Your task to perform on an android device: turn on sleep mode Image 0: 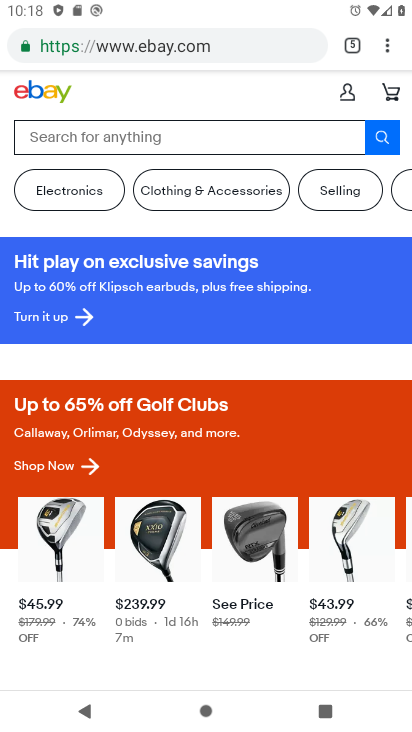
Step 0: press back button
Your task to perform on an android device: turn on sleep mode Image 1: 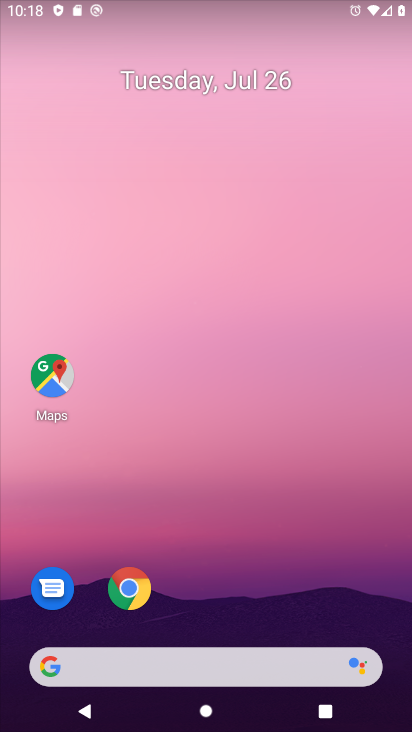
Step 1: drag from (219, 592) to (314, 0)
Your task to perform on an android device: turn on sleep mode Image 2: 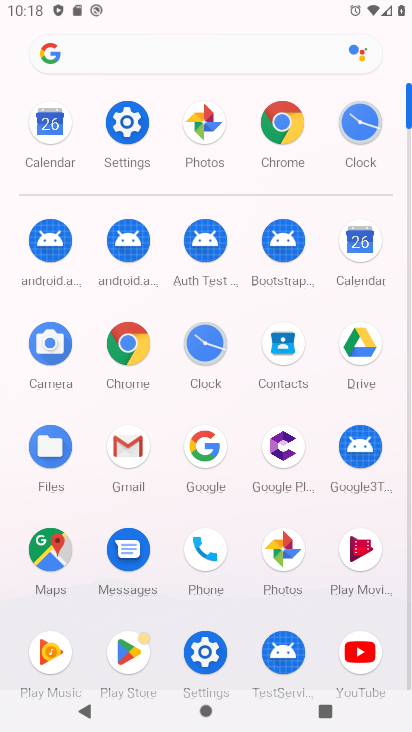
Step 2: click (127, 119)
Your task to perform on an android device: turn on sleep mode Image 3: 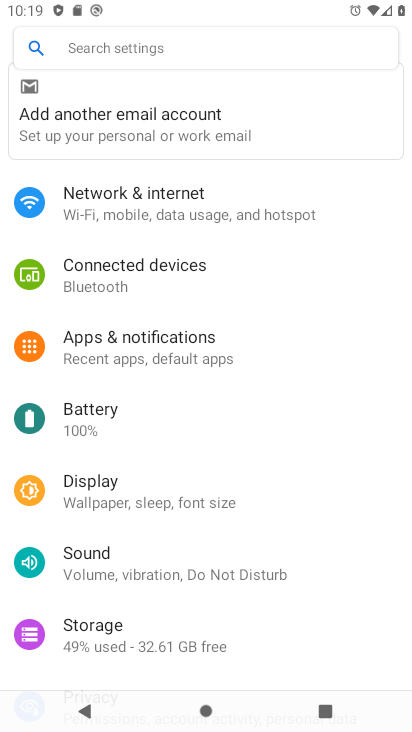
Step 3: click (162, 47)
Your task to perform on an android device: turn on sleep mode Image 4: 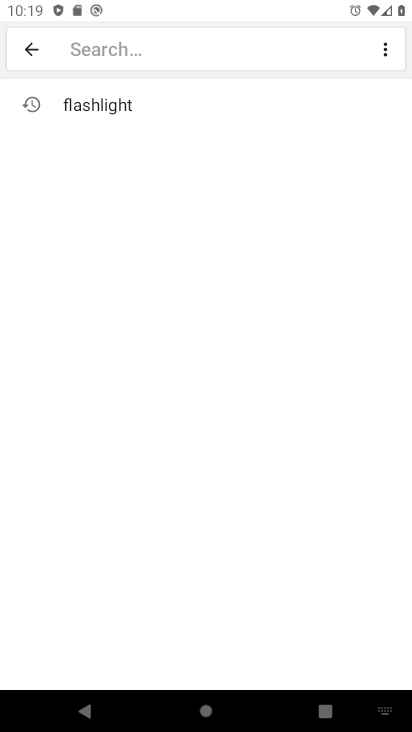
Step 4: type "sleep mode"
Your task to perform on an android device: turn on sleep mode Image 5: 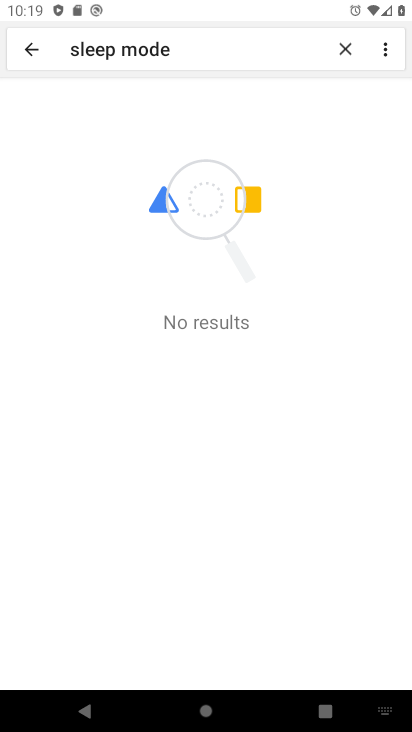
Step 5: task complete